Your task to perform on an android device: turn on location history Image 0: 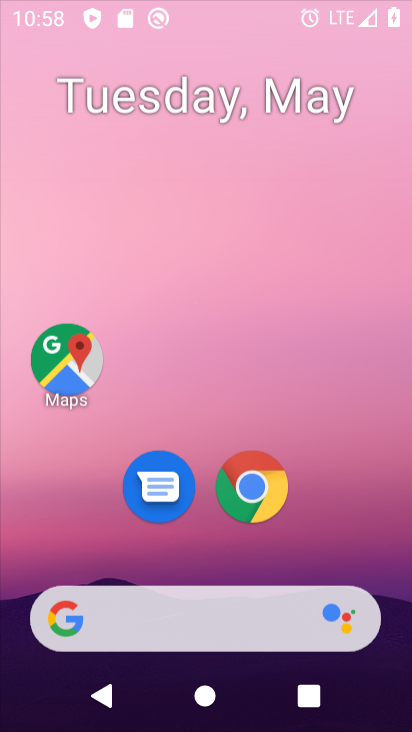
Step 0: click (284, 243)
Your task to perform on an android device: turn on location history Image 1: 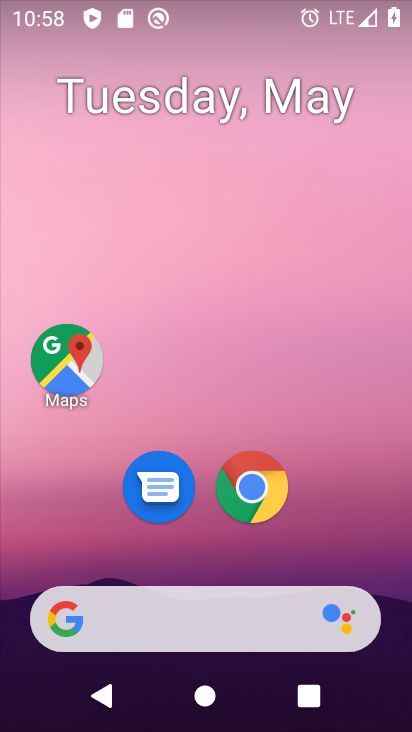
Step 1: drag from (212, 560) to (201, 233)
Your task to perform on an android device: turn on location history Image 2: 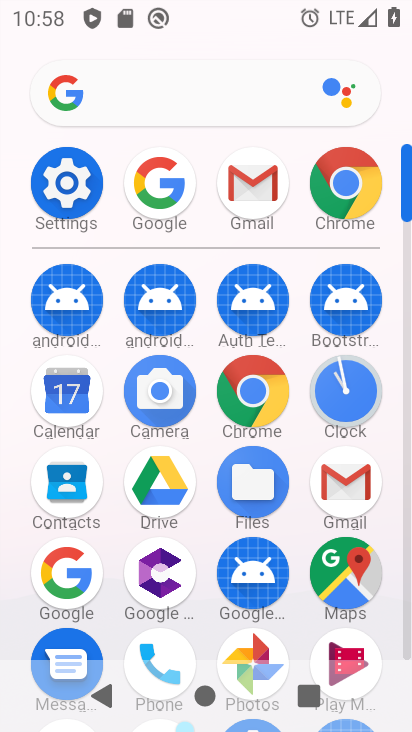
Step 2: click (67, 188)
Your task to perform on an android device: turn on location history Image 3: 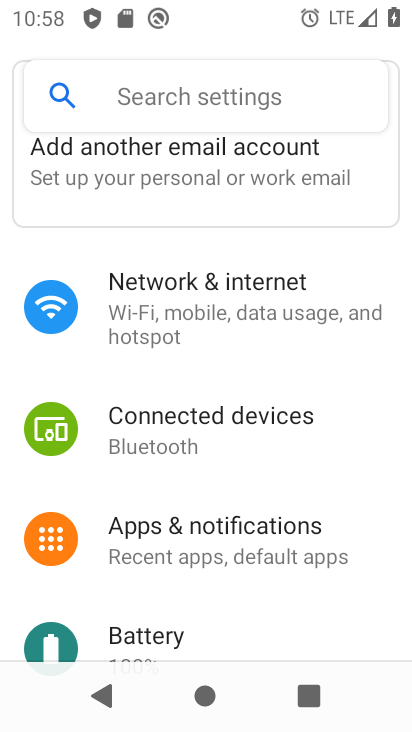
Step 3: drag from (271, 580) to (257, 226)
Your task to perform on an android device: turn on location history Image 4: 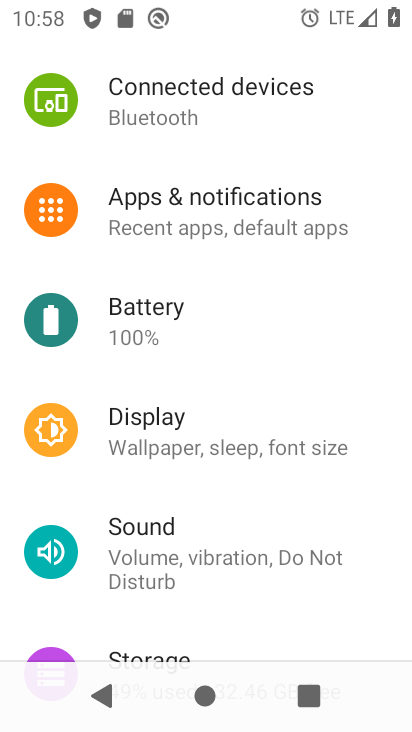
Step 4: drag from (198, 594) to (251, 230)
Your task to perform on an android device: turn on location history Image 5: 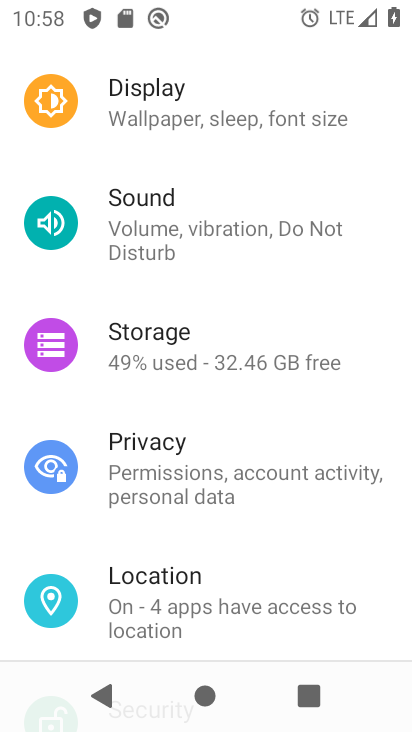
Step 5: click (186, 589)
Your task to perform on an android device: turn on location history Image 6: 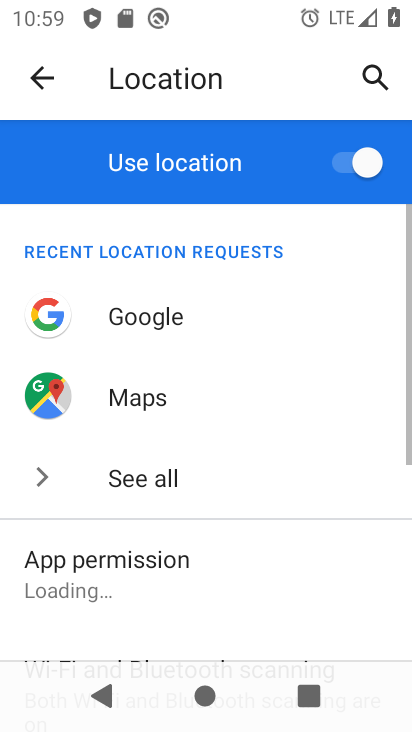
Step 6: drag from (200, 595) to (222, 189)
Your task to perform on an android device: turn on location history Image 7: 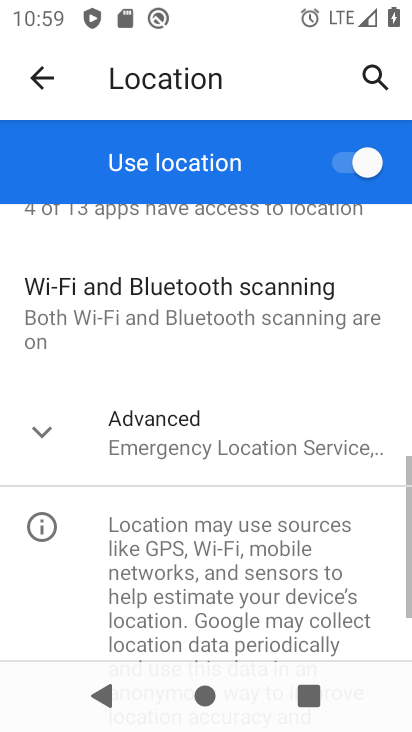
Step 7: click (129, 446)
Your task to perform on an android device: turn on location history Image 8: 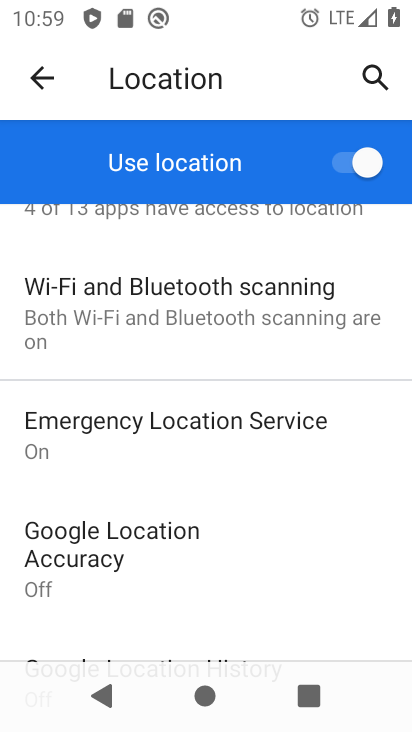
Step 8: drag from (201, 501) to (240, 219)
Your task to perform on an android device: turn on location history Image 9: 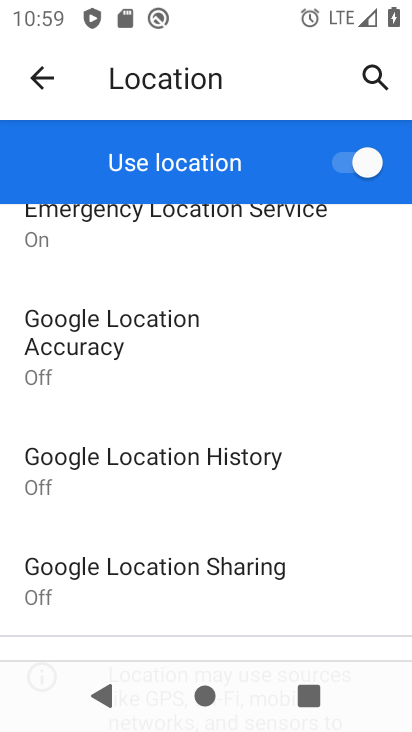
Step 9: click (176, 495)
Your task to perform on an android device: turn on location history Image 10: 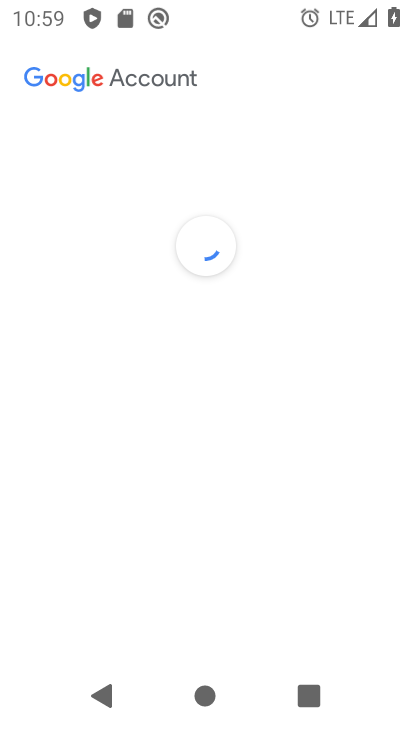
Step 10: drag from (216, 520) to (218, 249)
Your task to perform on an android device: turn on location history Image 11: 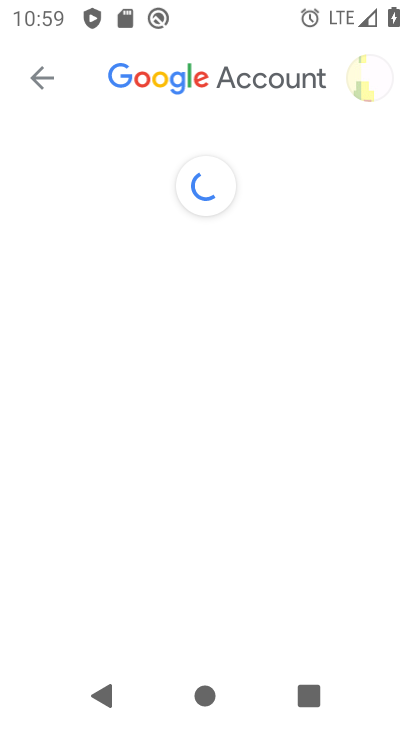
Step 11: drag from (232, 539) to (330, 70)
Your task to perform on an android device: turn on location history Image 12: 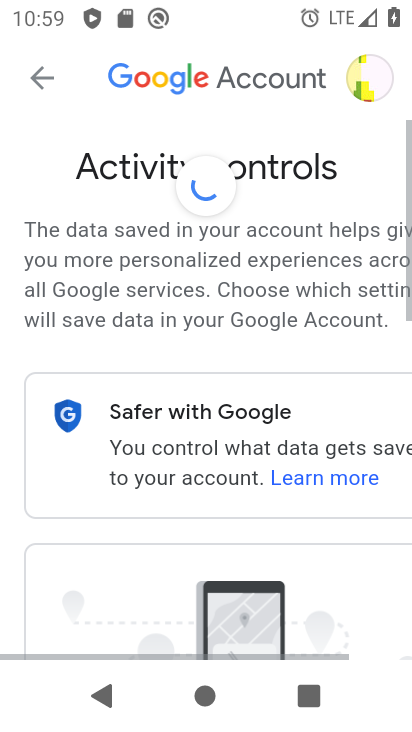
Step 12: click (372, 609)
Your task to perform on an android device: turn on location history Image 13: 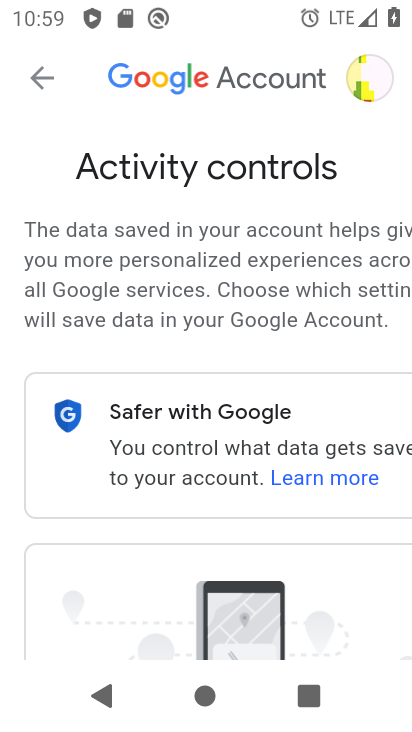
Step 13: drag from (267, 614) to (332, 168)
Your task to perform on an android device: turn on location history Image 14: 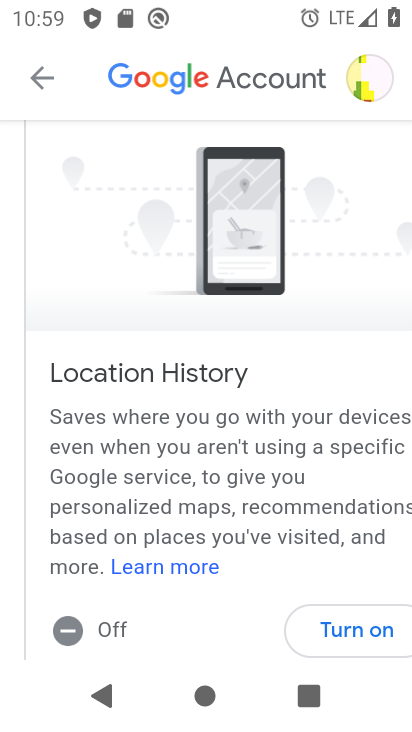
Step 14: click (344, 630)
Your task to perform on an android device: turn on location history Image 15: 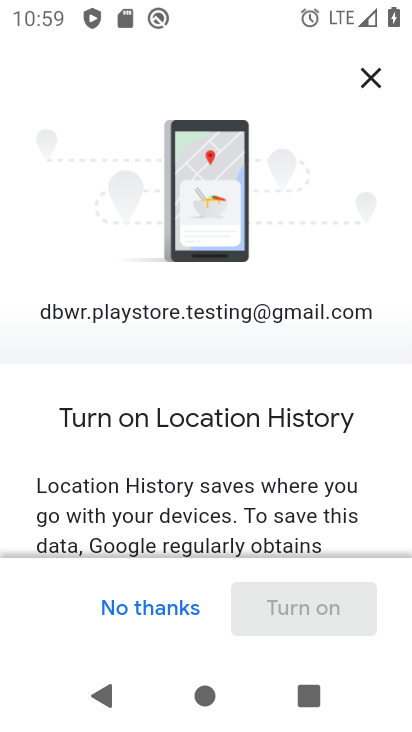
Step 15: drag from (207, 507) to (369, 0)
Your task to perform on an android device: turn on location history Image 16: 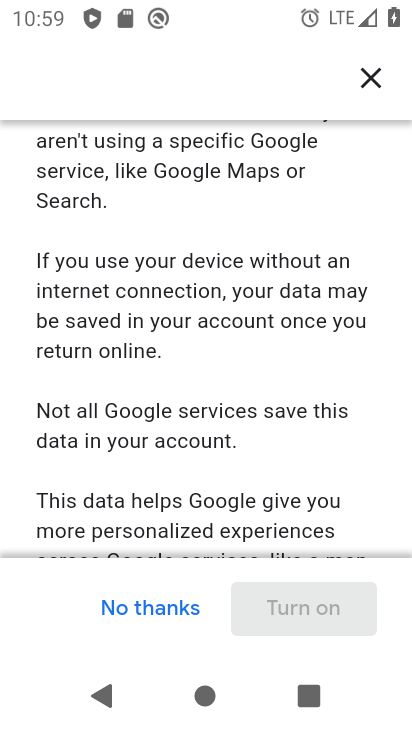
Step 16: drag from (196, 527) to (289, 58)
Your task to perform on an android device: turn on location history Image 17: 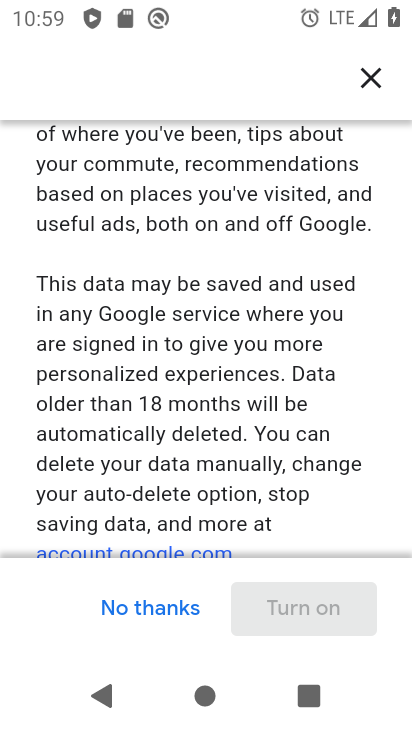
Step 17: drag from (187, 530) to (261, 102)
Your task to perform on an android device: turn on location history Image 18: 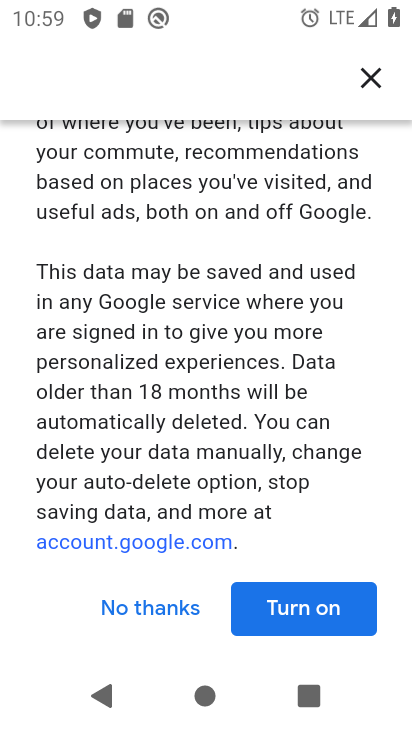
Step 18: drag from (251, 549) to (318, 49)
Your task to perform on an android device: turn on location history Image 19: 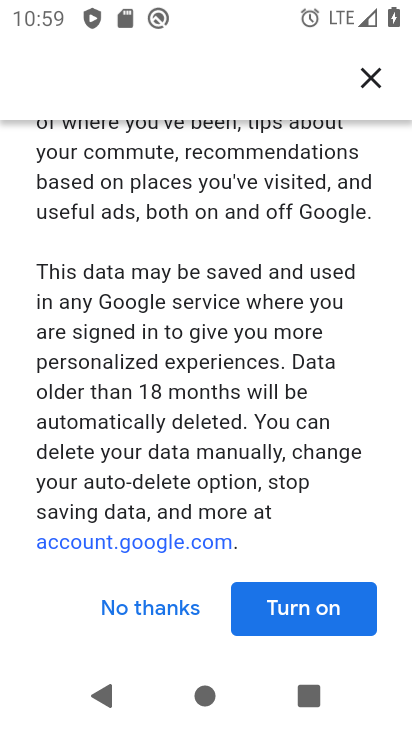
Step 19: click (270, 619)
Your task to perform on an android device: turn on location history Image 20: 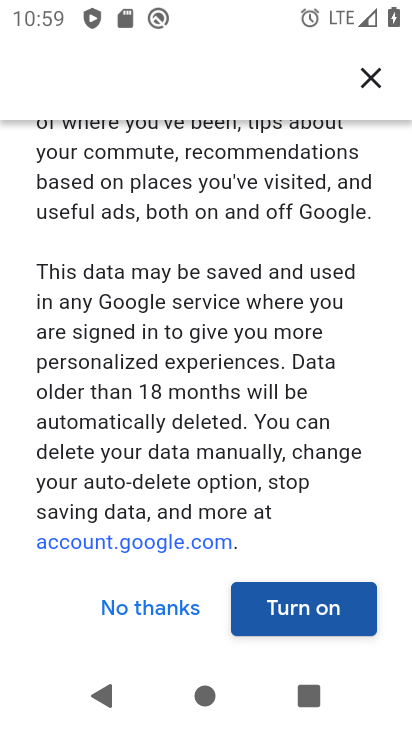
Step 20: drag from (244, 505) to (290, 207)
Your task to perform on an android device: turn on location history Image 21: 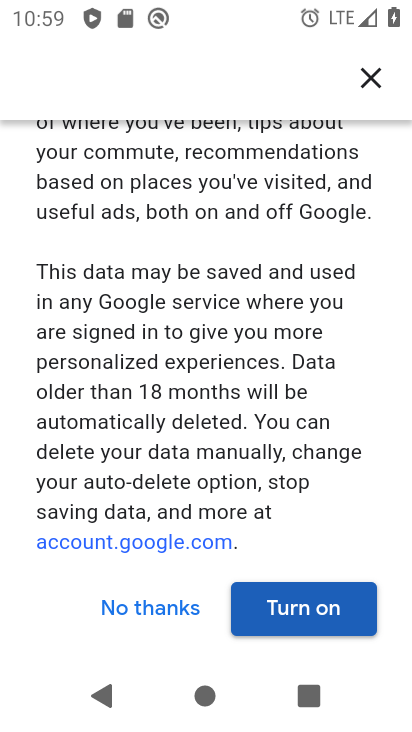
Step 21: drag from (269, 560) to (321, 235)
Your task to perform on an android device: turn on location history Image 22: 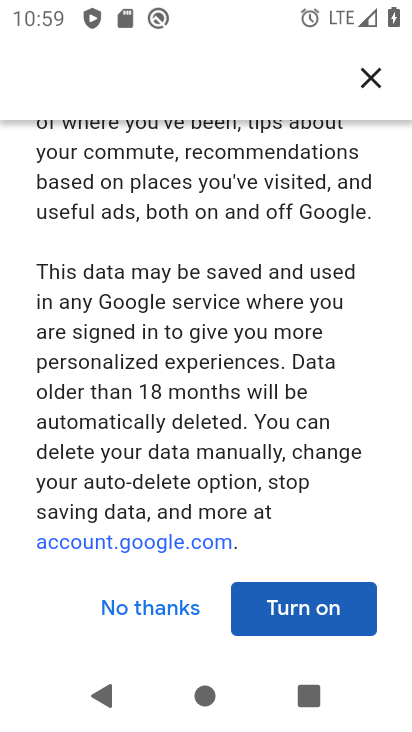
Step 22: click (305, 614)
Your task to perform on an android device: turn on location history Image 23: 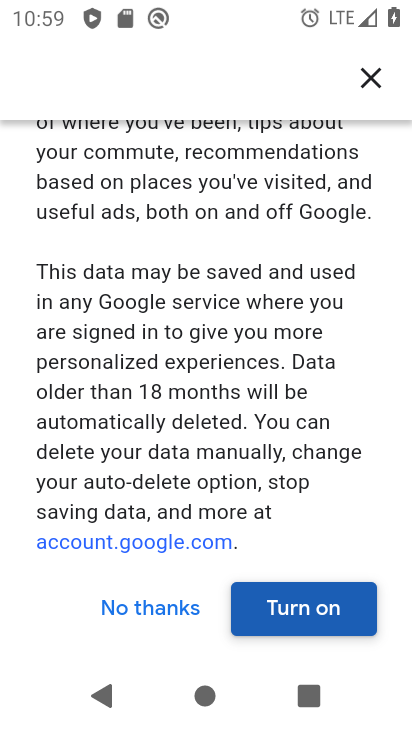
Step 23: task complete